Your task to perform on an android device: Go to ESPN.com Image 0: 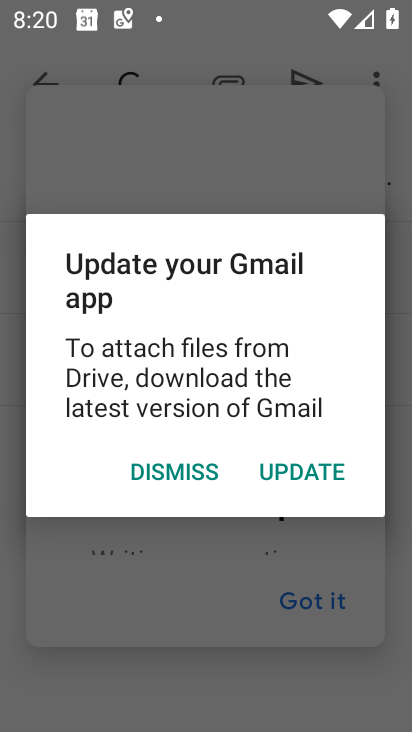
Step 0: press home button
Your task to perform on an android device: Go to ESPN.com Image 1: 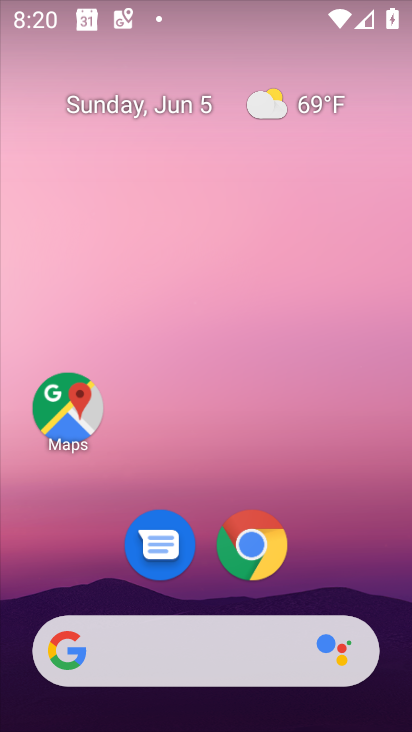
Step 1: drag from (359, 585) to (348, 161)
Your task to perform on an android device: Go to ESPN.com Image 2: 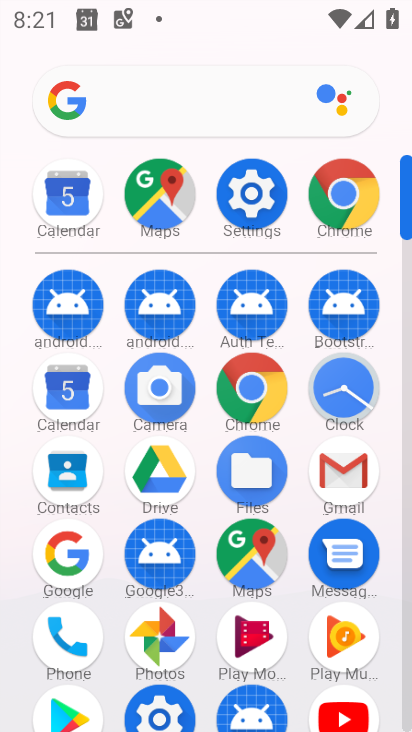
Step 2: click (273, 398)
Your task to perform on an android device: Go to ESPN.com Image 3: 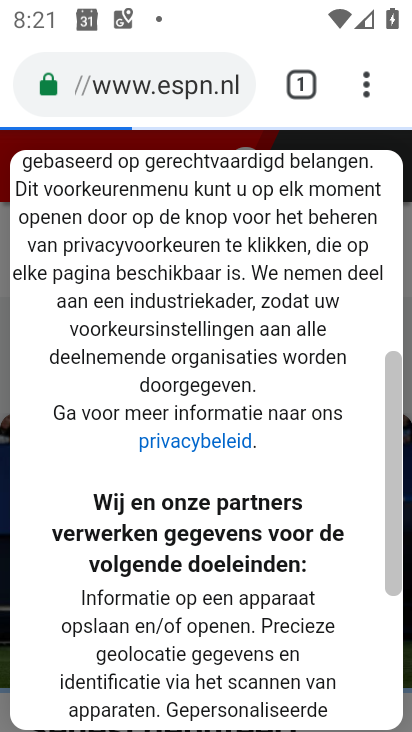
Step 3: click (209, 97)
Your task to perform on an android device: Go to ESPN.com Image 4: 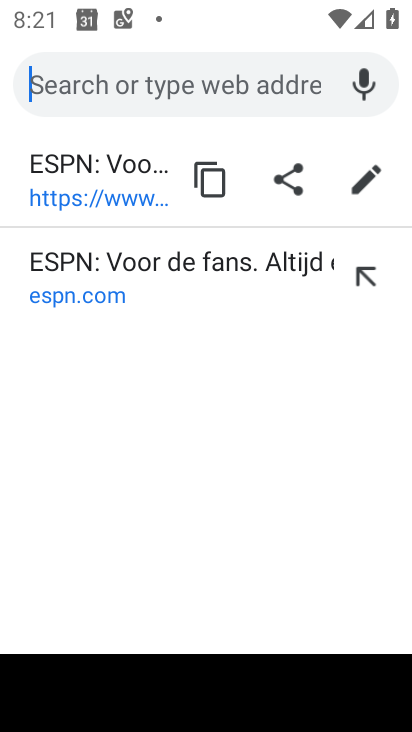
Step 4: type "espn.com"
Your task to perform on an android device: Go to ESPN.com Image 5: 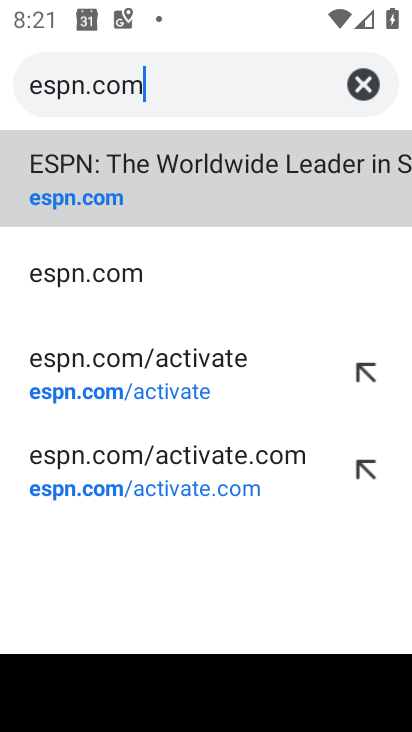
Step 5: click (118, 284)
Your task to perform on an android device: Go to ESPN.com Image 6: 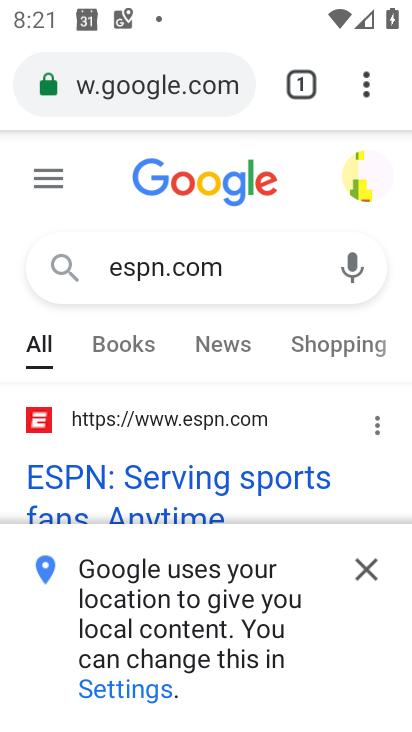
Step 6: task complete